Your task to perform on an android device: delete a single message in the gmail app Image 0: 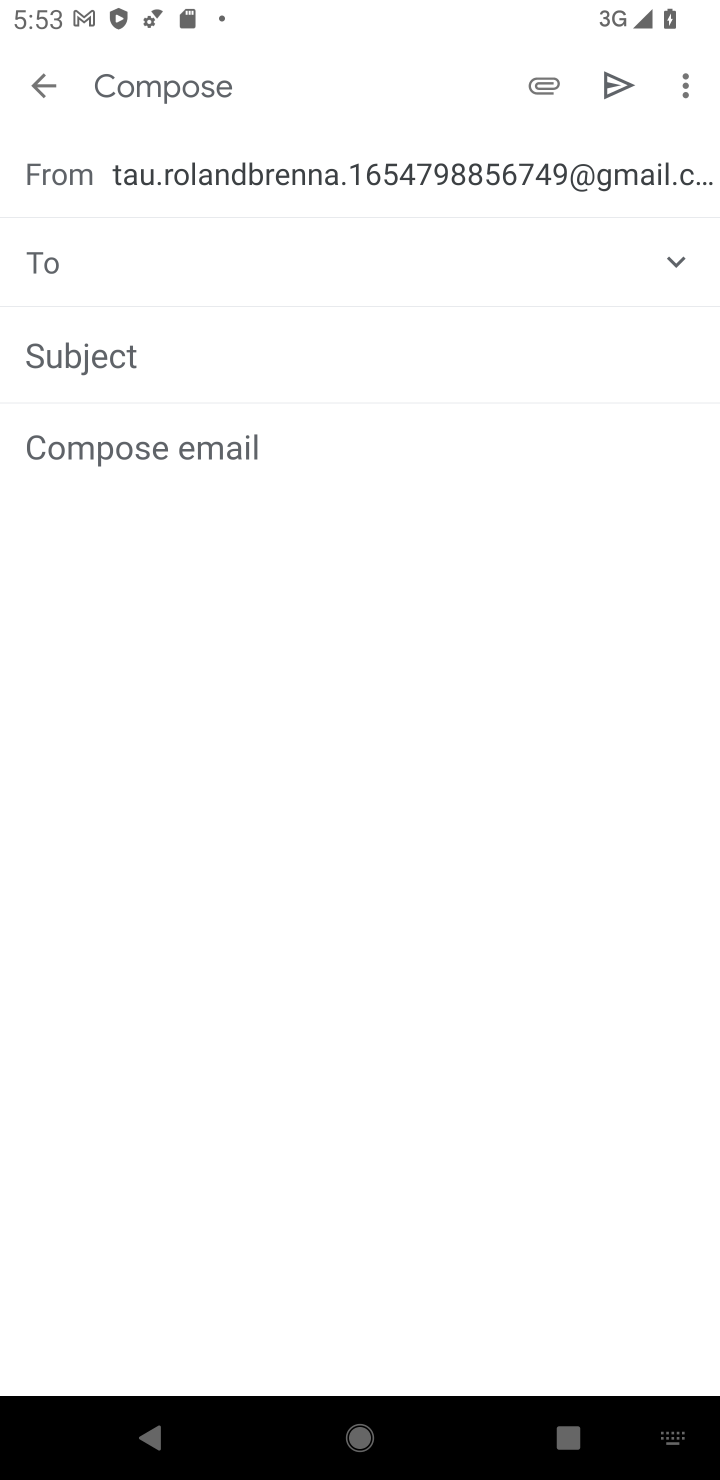
Step 0: press home button
Your task to perform on an android device: delete a single message in the gmail app Image 1: 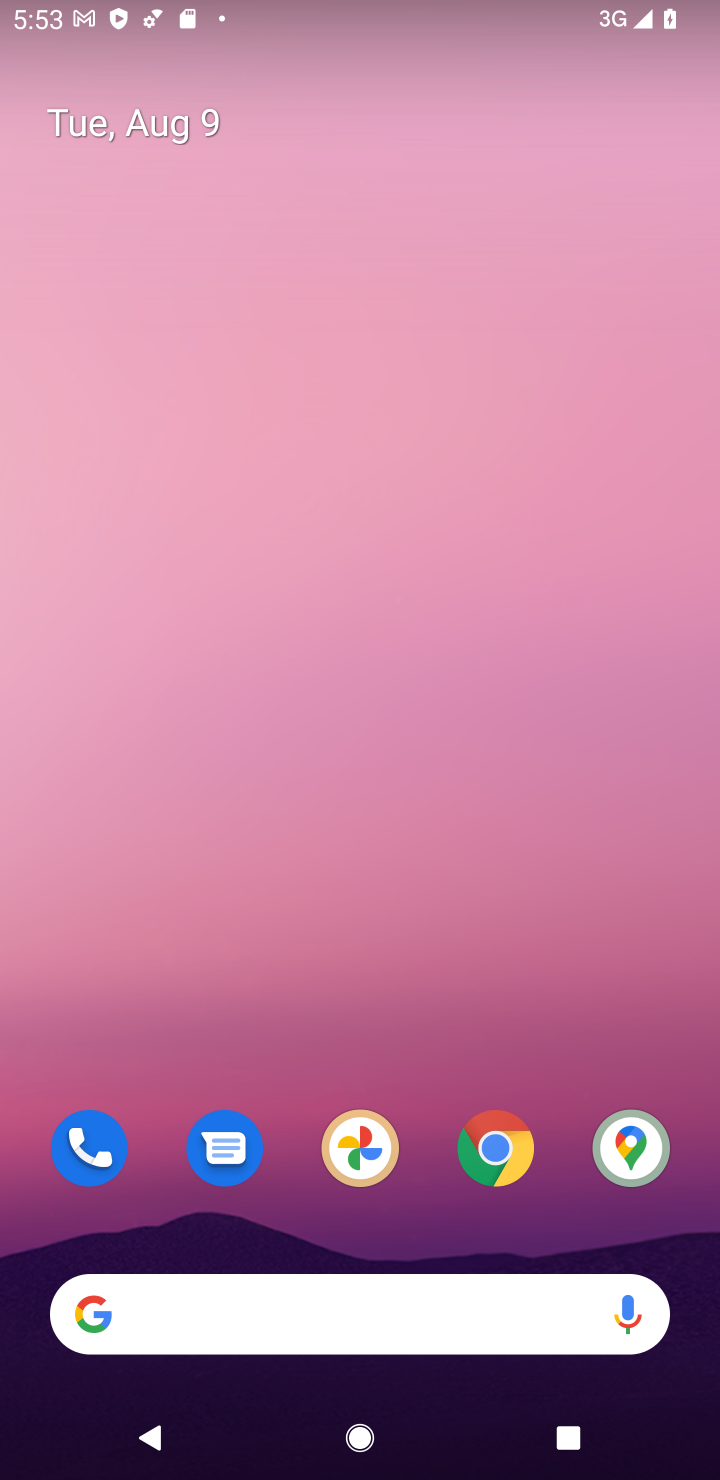
Step 1: drag from (273, 1093) to (273, 500)
Your task to perform on an android device: delete a single message in the gmail app Image 2: 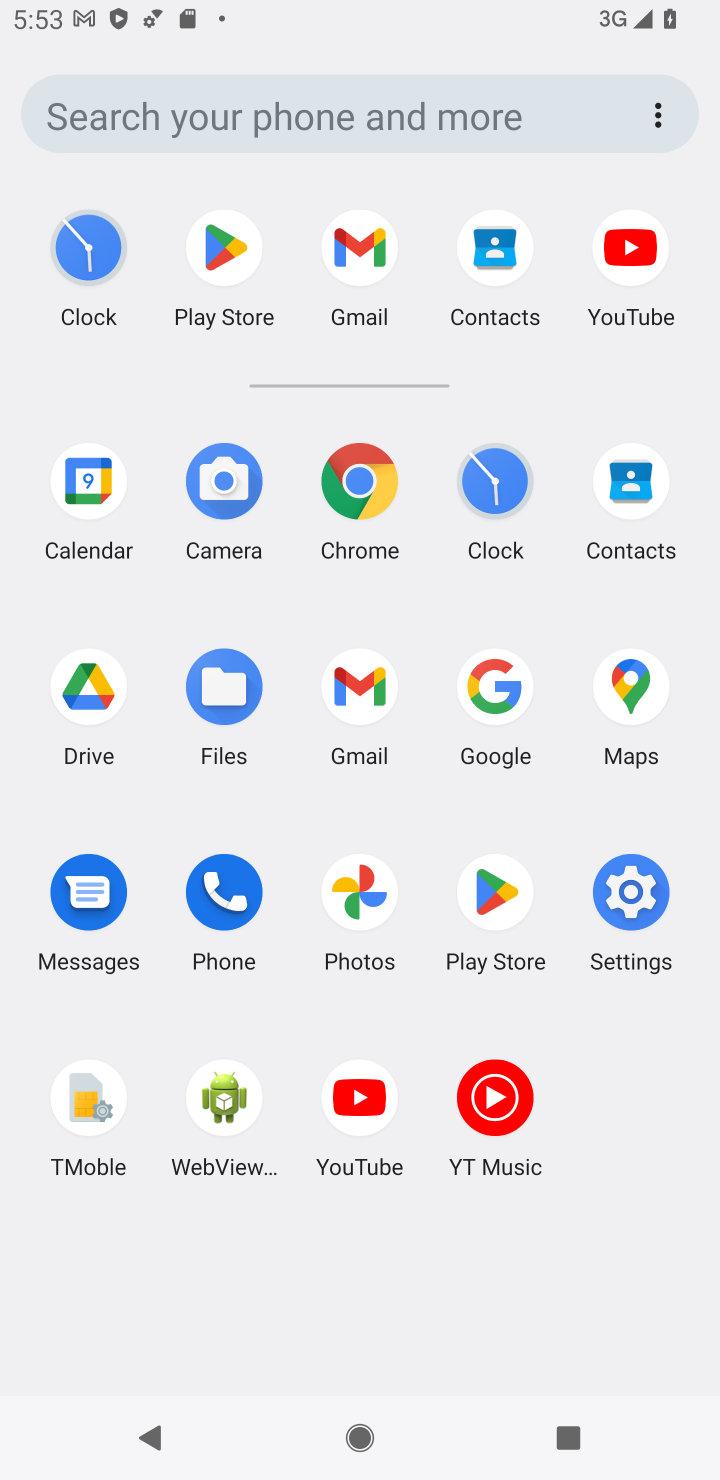
Step 2: click (372, 737)
Your task to perform on an android device: delete a single message in the gmail app Image 3: 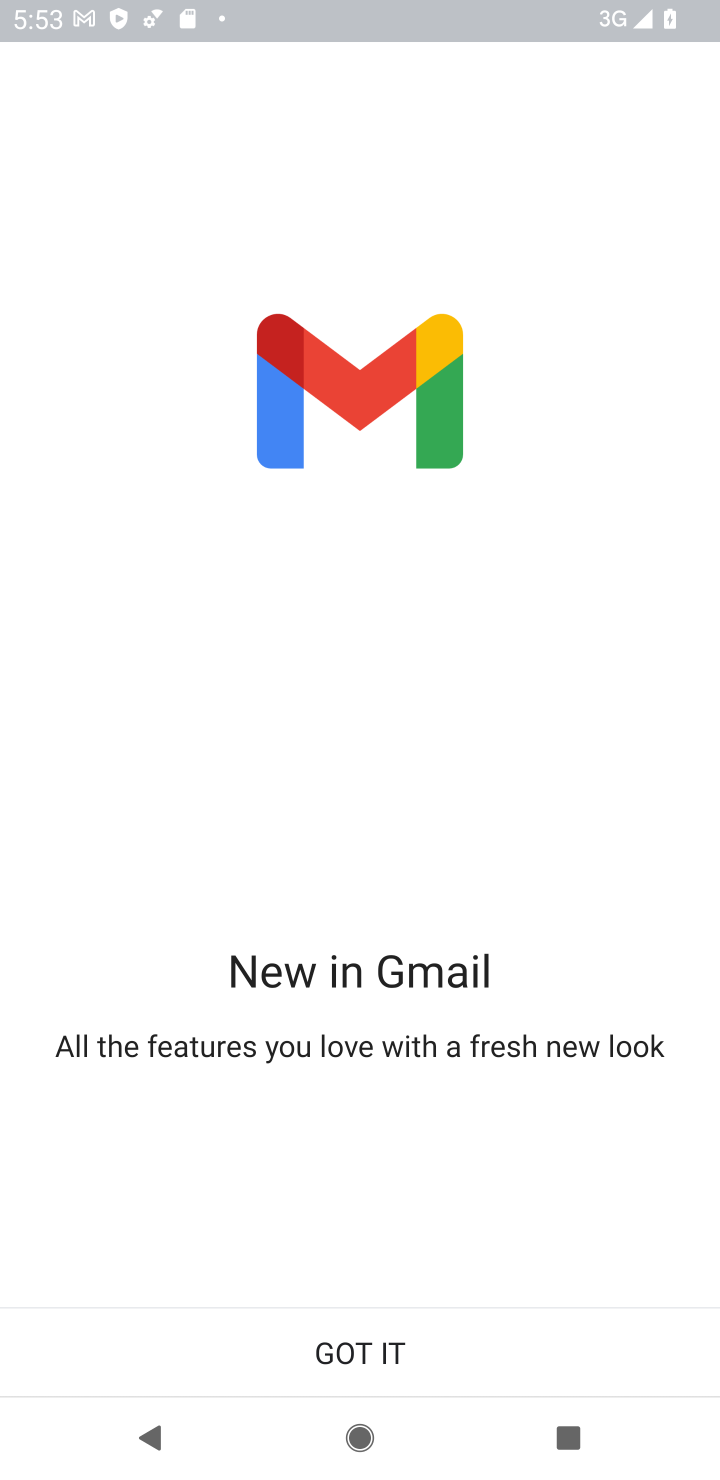
Step 3: click (361, 1353)
Your task to perform on an android device: delete a single message in the gmail app Image 4: 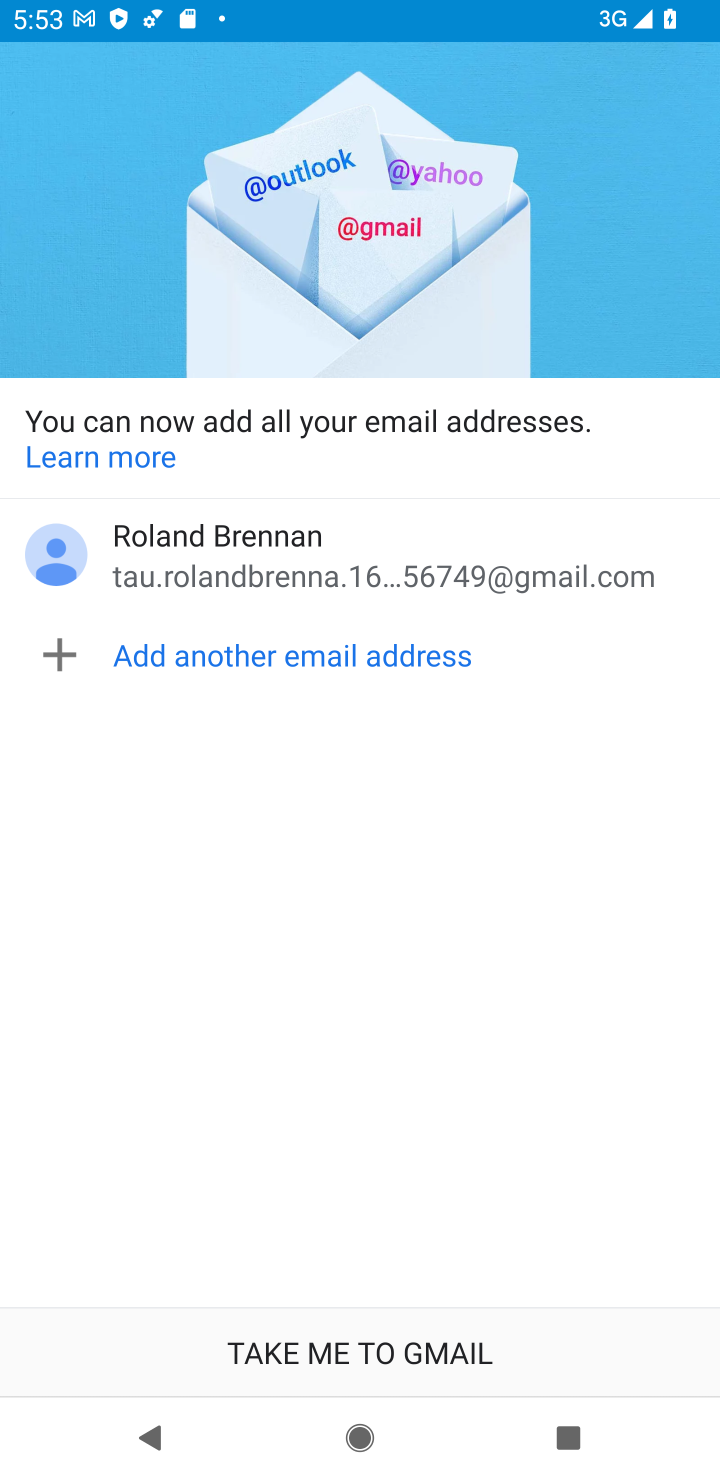
Step 4: click (351, 1342)
Your task to perform on an android device: delete a single message in the gmail app Image 5: 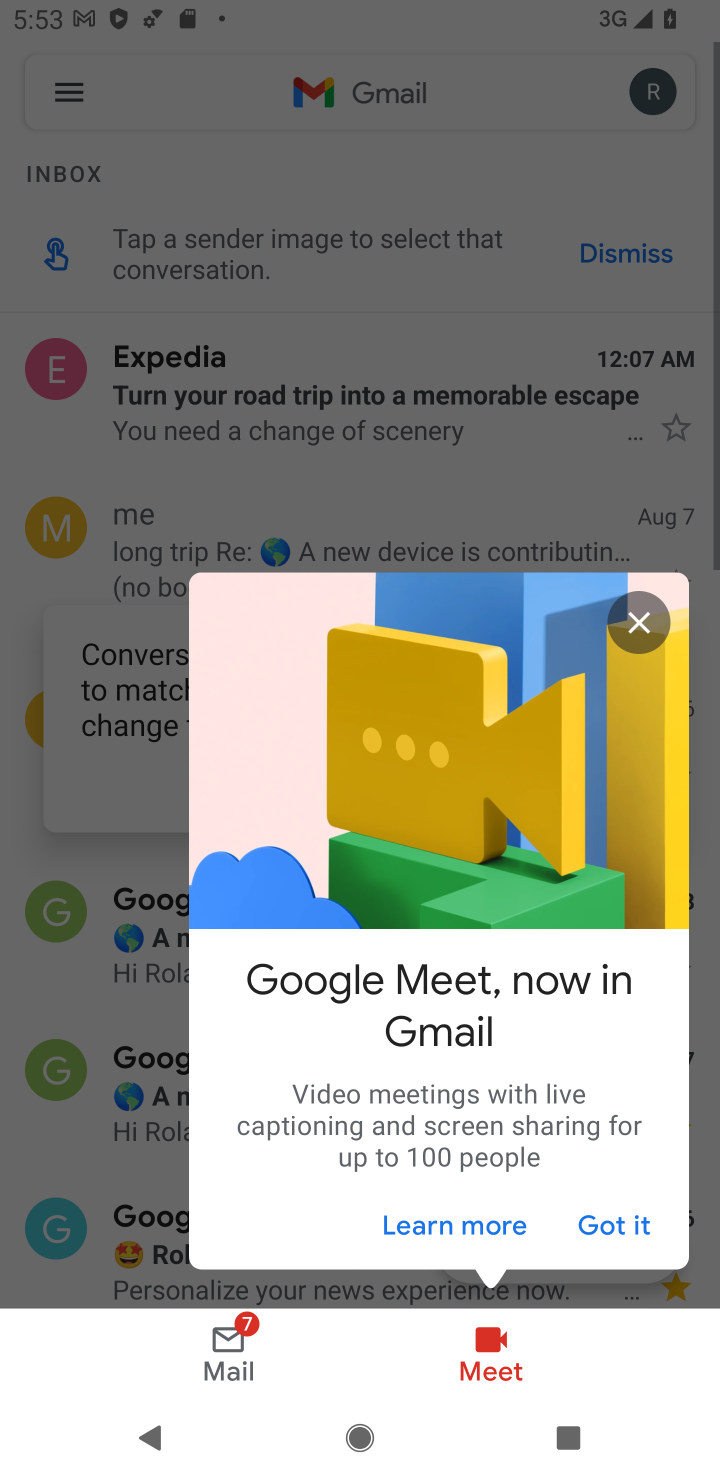
Step 5: click (654, 616)
Your task to perform on an android device: delete a single message in the gmail app Image 6: 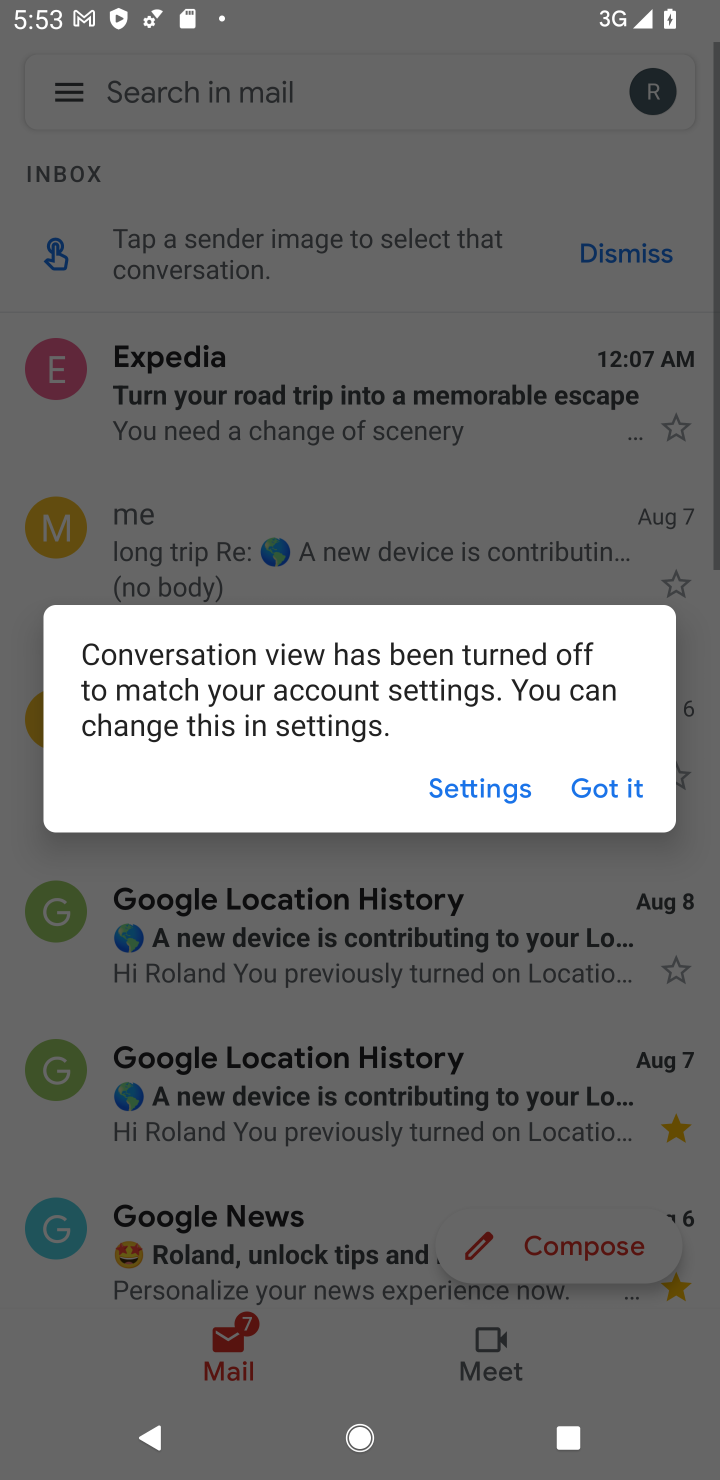
Step 6: click (597, 786)
Your task to perform on an android device: delete a single message in the gmail app Image 7: 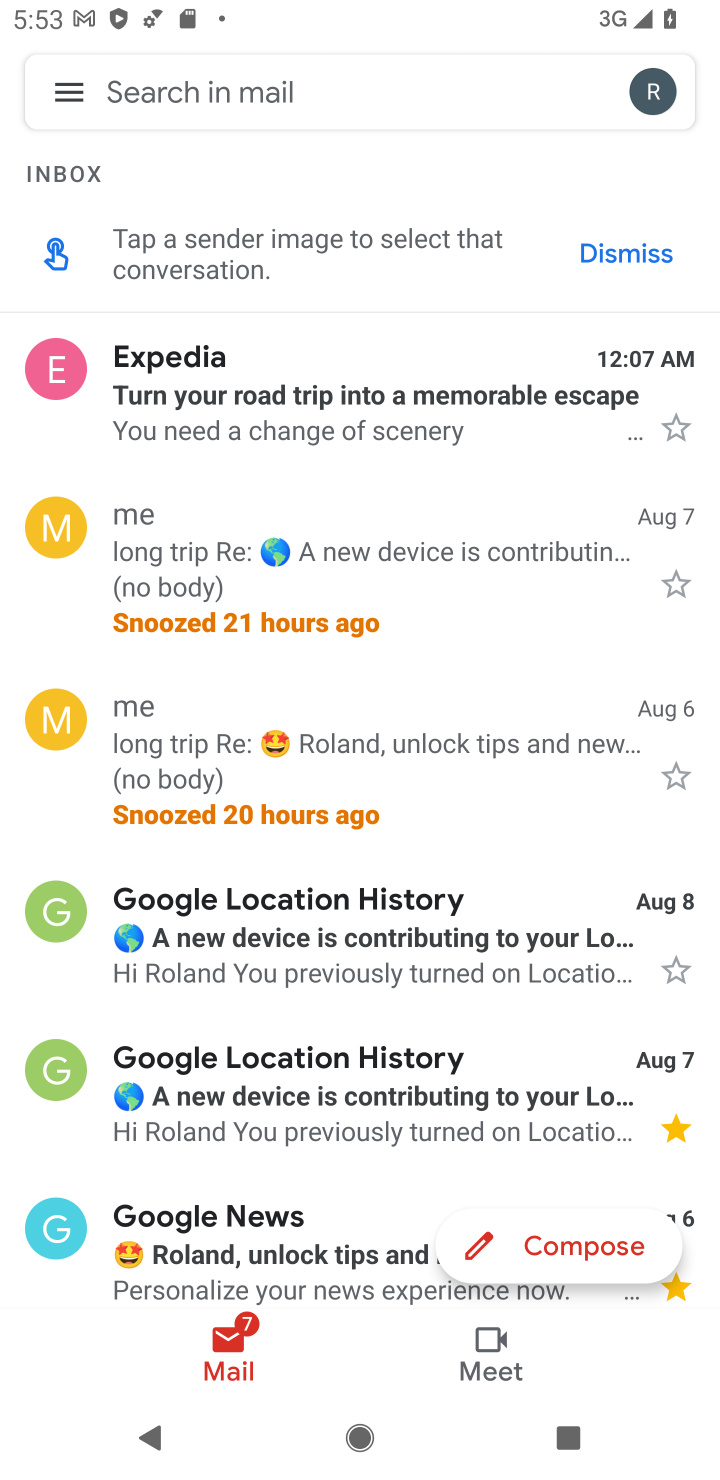
Step 7: click (42, 352)
Your task to perform on an android device: delete a single message in the gmail app Image 8: 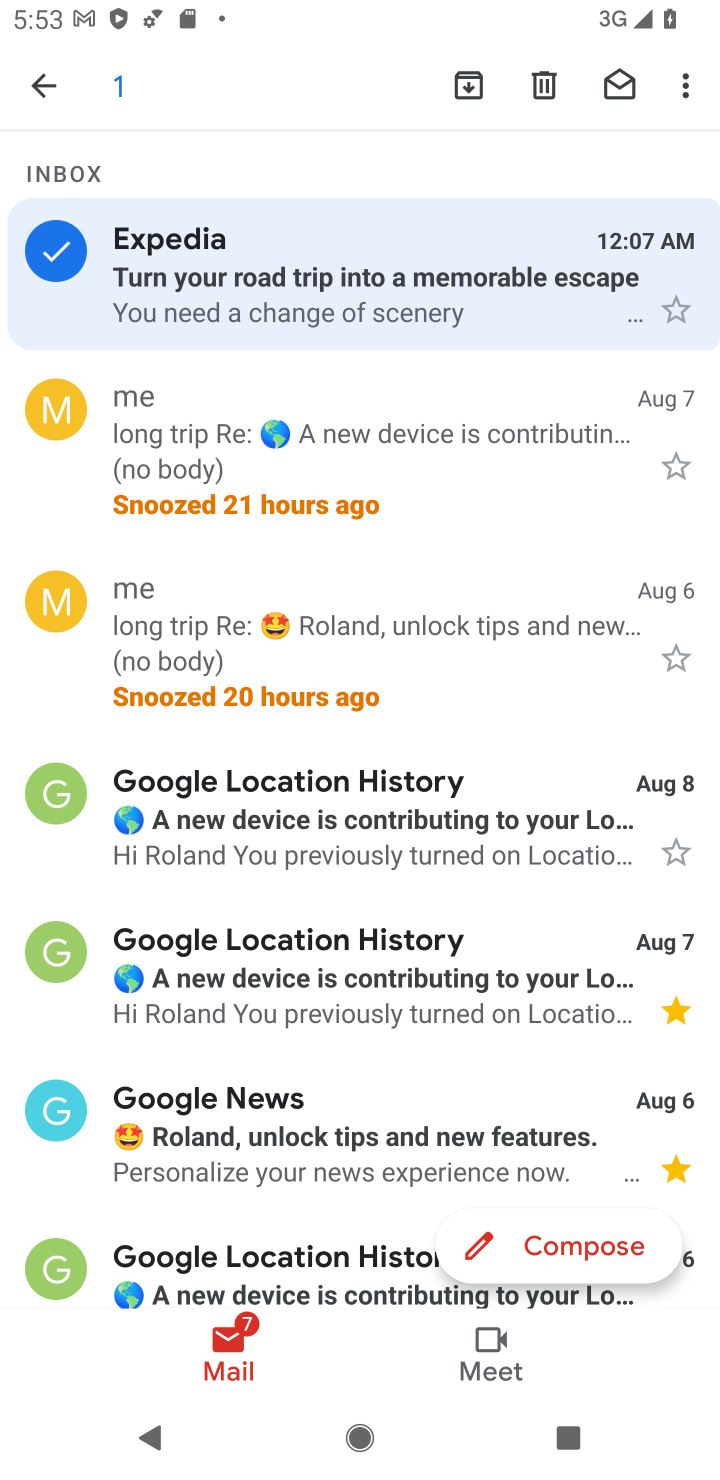
Step 8: click (546, 73)
Your task to perform on an android device: delete a single message in the gmail app Image 9: 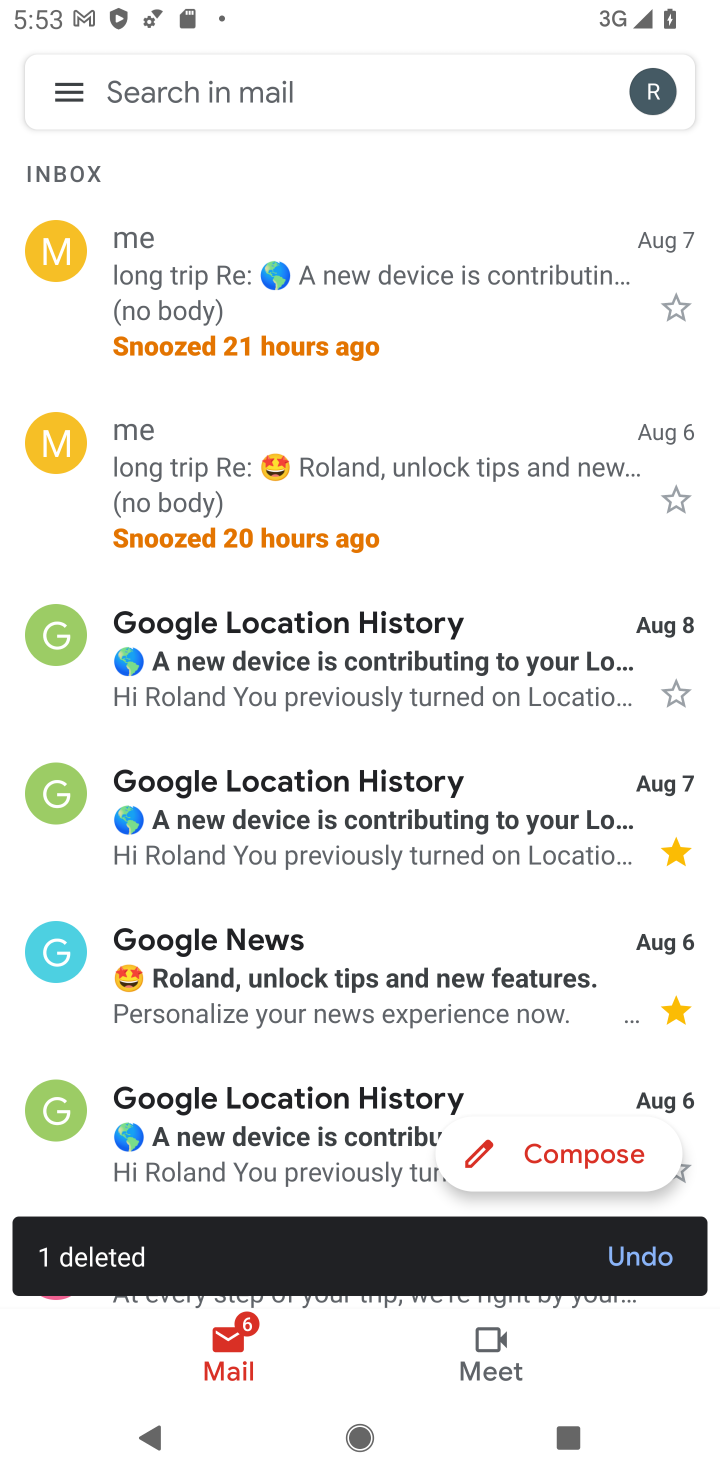
Step 9: task complete